Your task to perform on an android device: turn off notifications in google photos Image 0: 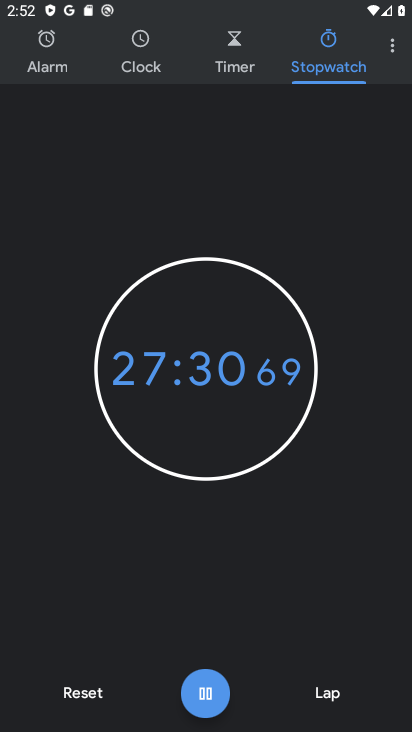
Step 0: press home button
Your task to perform on an android device: turn off notifications in google photos Image 1: 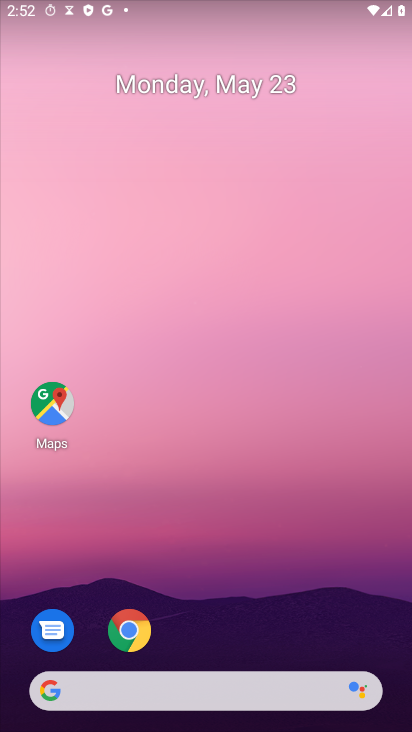
Step 1: drag from (263, 577) to (247, 281)
Your task to perform on an android device: turn off notifications in google photos Image 2: 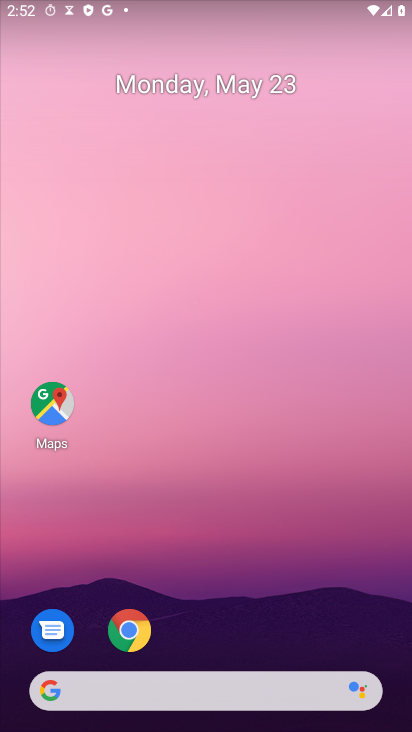
Step 2: drag from (293, 576) to (404, 92)
Your task to perform on an android device: turn off notifications in google photos Image 3: 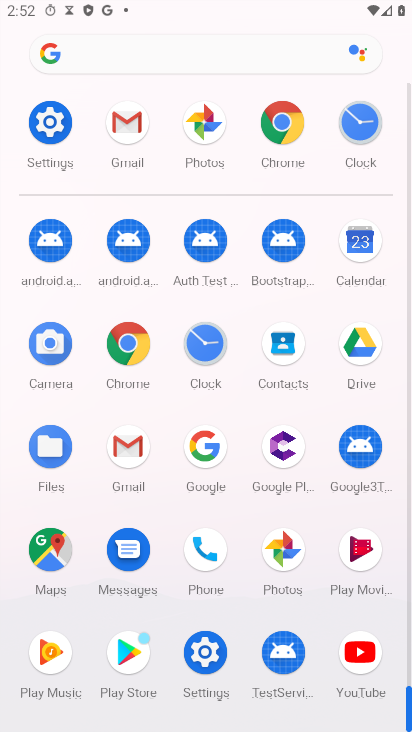
Step 3: click (194, 142)
Your task to perform on an android device: turn off notifications in google photos Image 4: 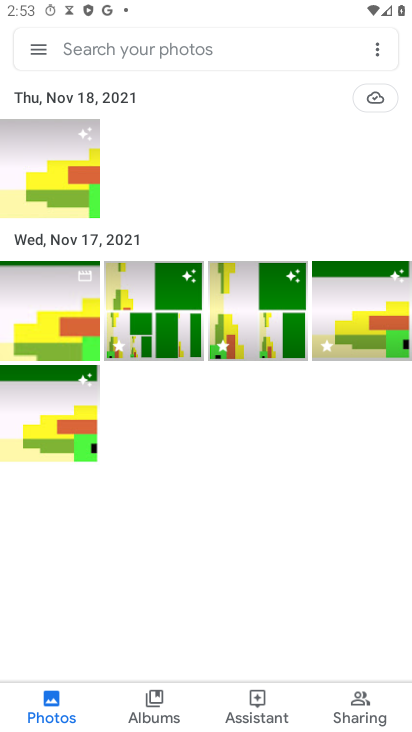
Step 4: click (29, 51)
Your task to perform on an android device: turn off notifications in google photos Image 5: 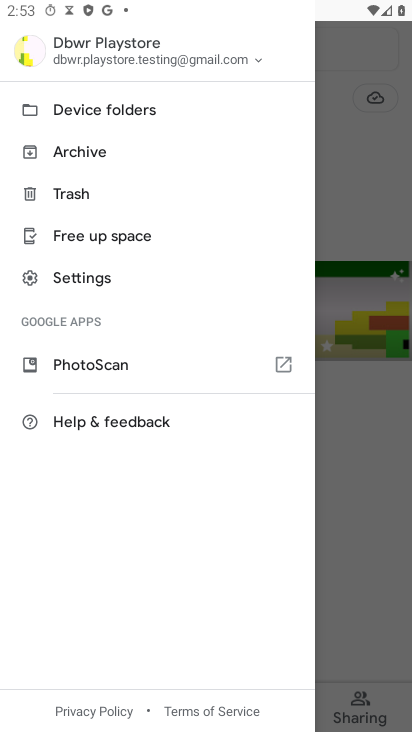
Step 5: click (78, 285)
Your task to perform on an android device: turn off notifications in google photos Image 6: 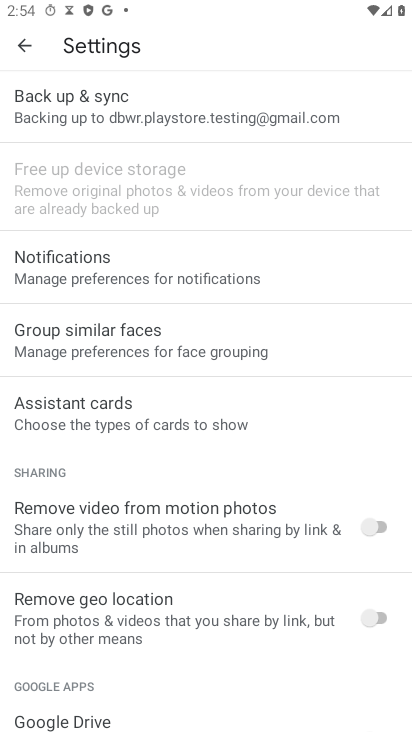
Step 6: click (78, 285)
Your task to perform on an android device: turn off notifications in google photos Image 7: 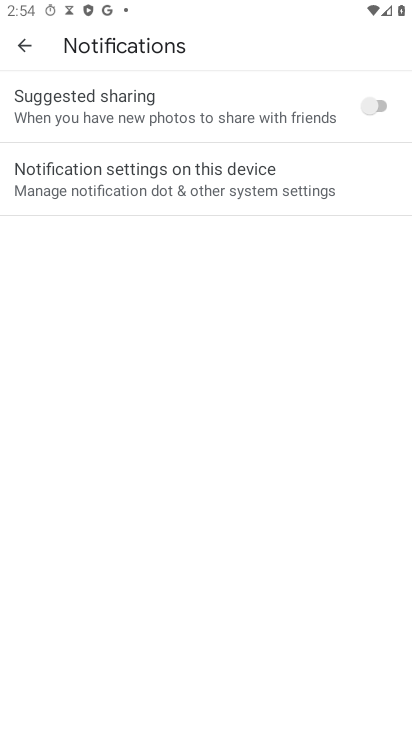
Step 7: click (236, 167)
Your task to perform on an android device: turn off notifications in google photos Image 8: 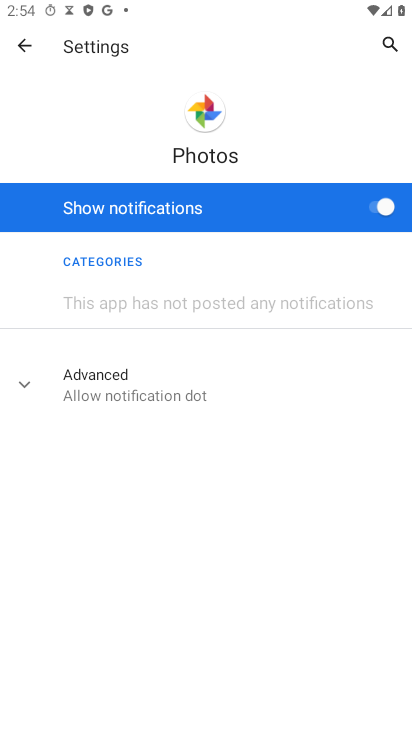
Step 8: click (364, 208)
Your task to perform on an android device: turn off notifications in google photos Image 9: 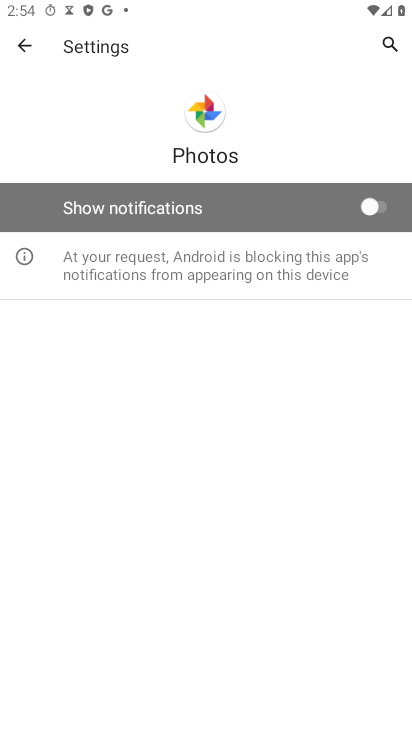
Step 9: task complete